Your task to perform on an android device: Search for vegetarian restaurants on Maps Image 0: 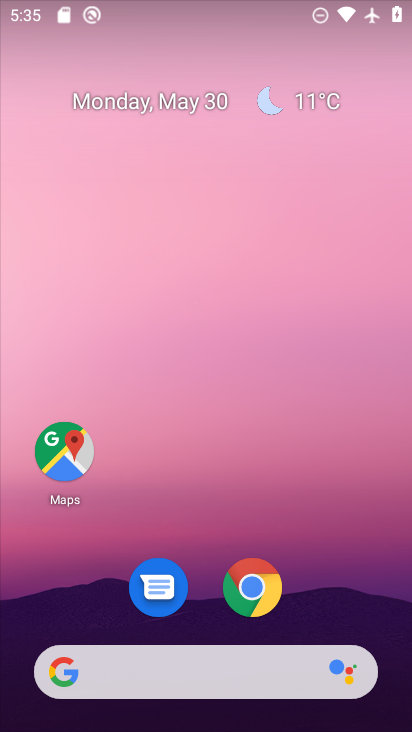
Step 0: drag from (381, 551) to (172, 34)
Your task to perform on an android device: Search for vegetarian restaurants on Maps Image 1: 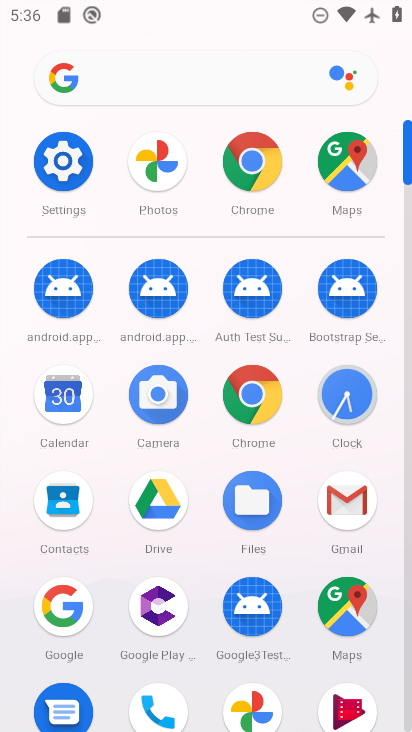
Step 1: drag from (0, 540) to (0, 194)
Your task to perform on an android device: Search for vegetarian restaurants on Maps Image 2: 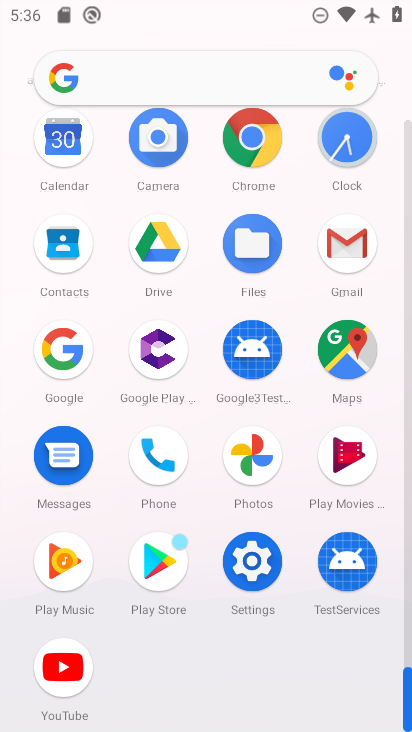
Step 2: drag from (20, 481) to (9, 174)
Your task to perform on an android device: Search for vegetarian restaurants on Maps Image 3: 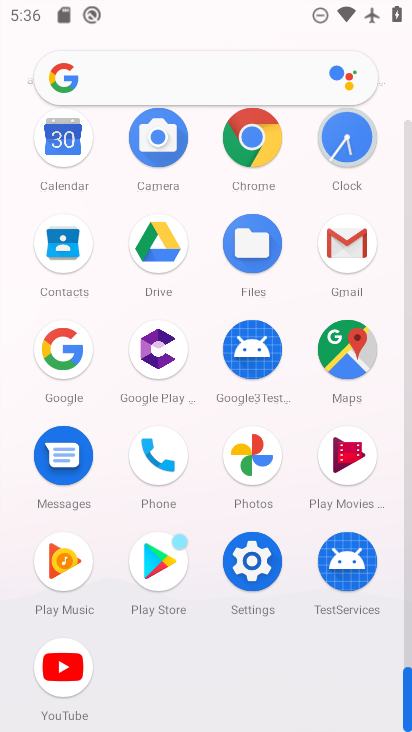
Step 3: click (342, 346)
Your task to perform on an android device: Search for vegetarian restaurants on Maps Image 4: 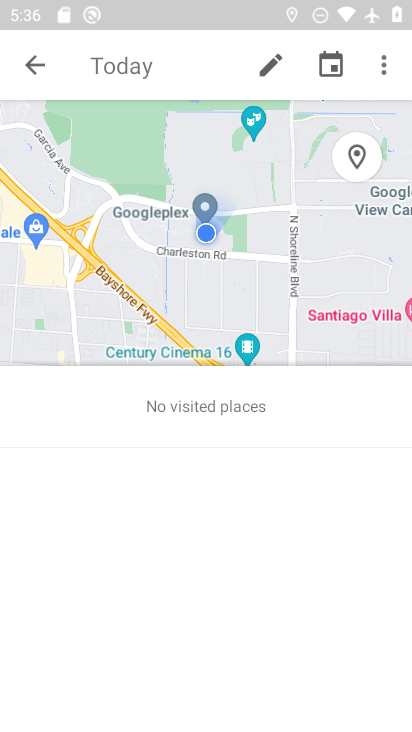
Step 4: click (39, 68)
Your task to perform on an android device: Search for vegetarian restaurants on Maps Image 5: 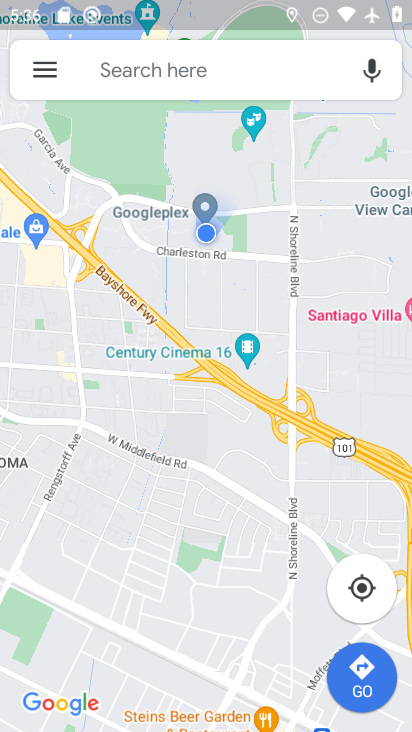
Step 5: click (228, 67)
Your task to perform on an android device: Search for vegetarian restaurants on Maps Image 6: 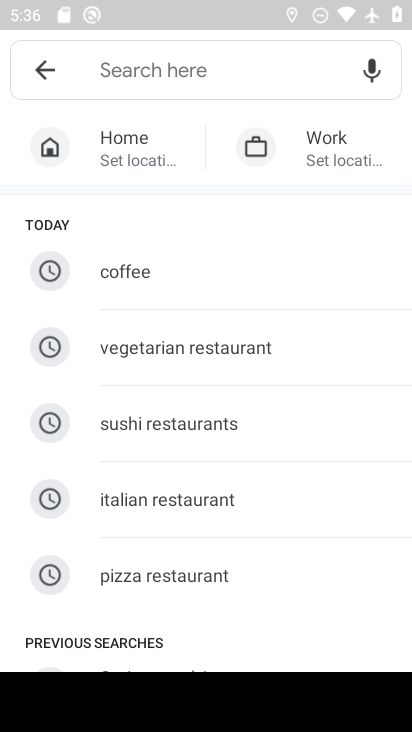
Step 6: click (199, 344)
Your task to perform on an android device: Search for vegetarian restaurants on Maps Image 7: 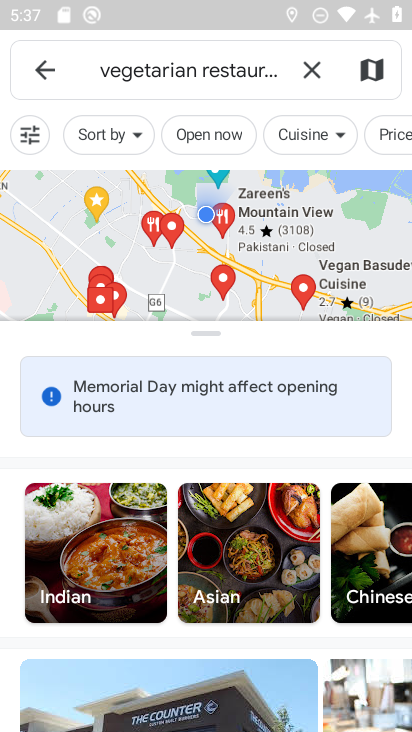
Step 7: task complete